Your task to perform on an android device: Check the settings for the Google Play Movies app Image 0: 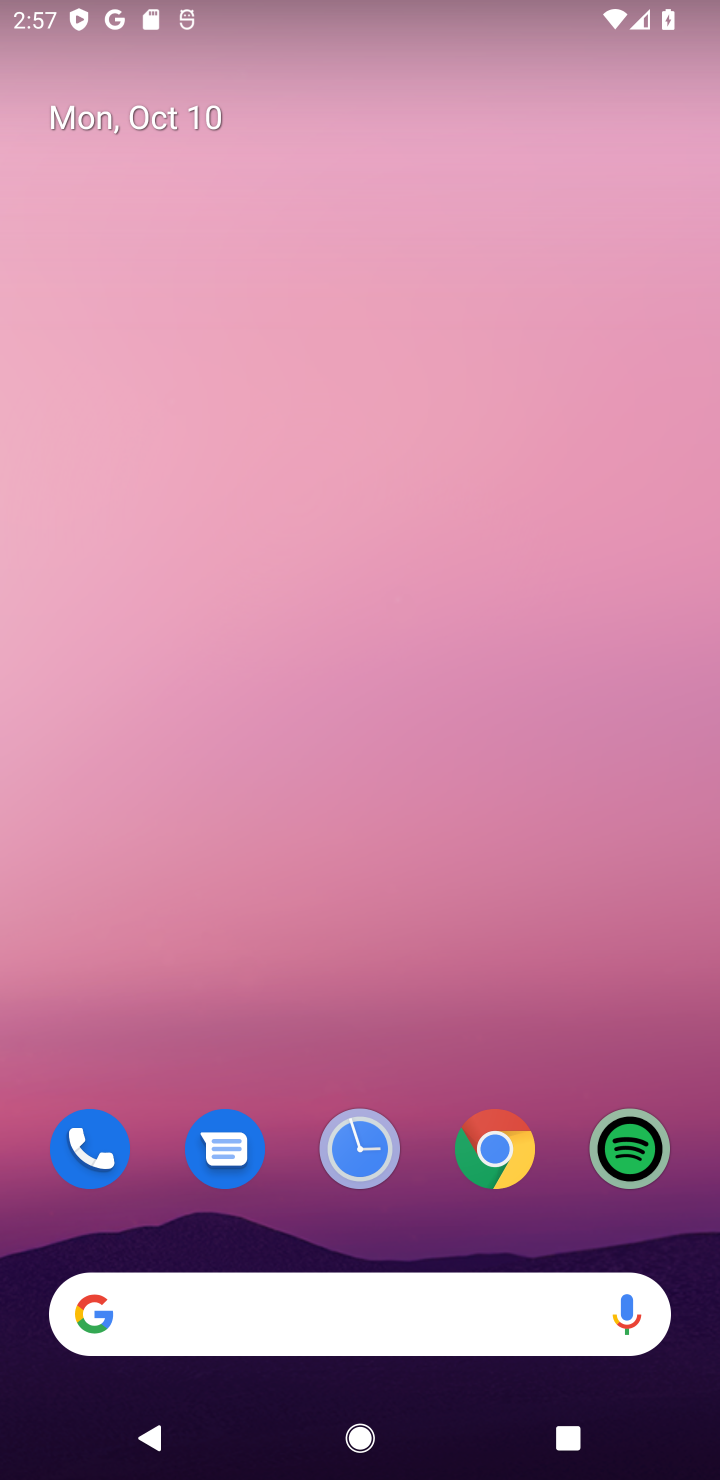
Step 0: drag from (420, 1237) to (404, 7)
Your task to perform on an android device: Check the settings for the Google Play Movies app Image 1: 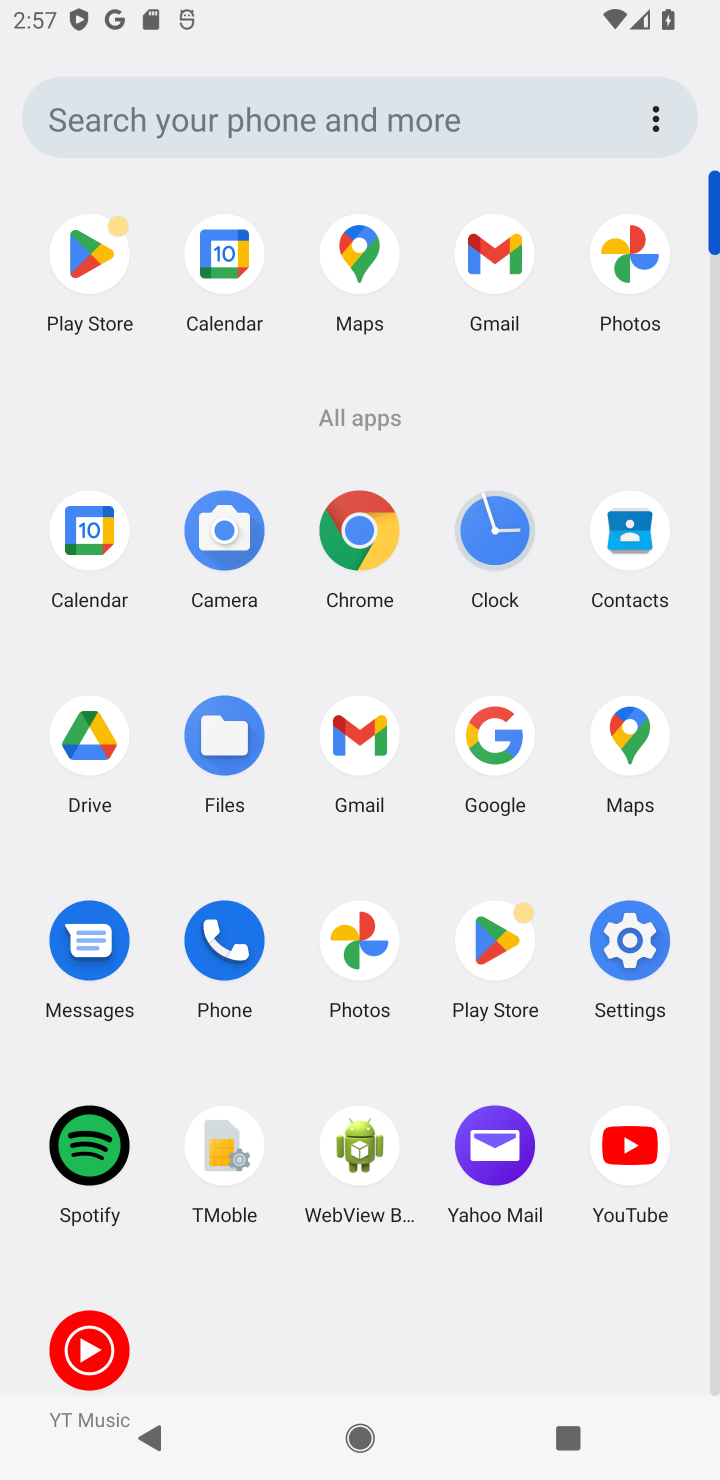
Step 1: task complete